Your task to perform on an android device: Find coffee shops on Maps Image 0: 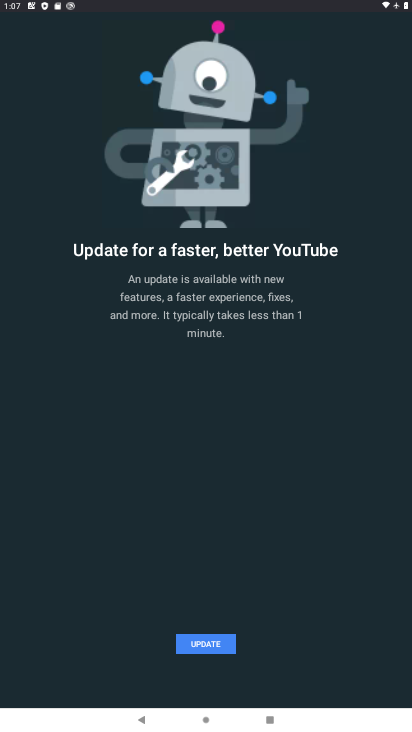
Step 0: press home button
Your task to perform on an android device: Find coffee shops on Maps Image 1: 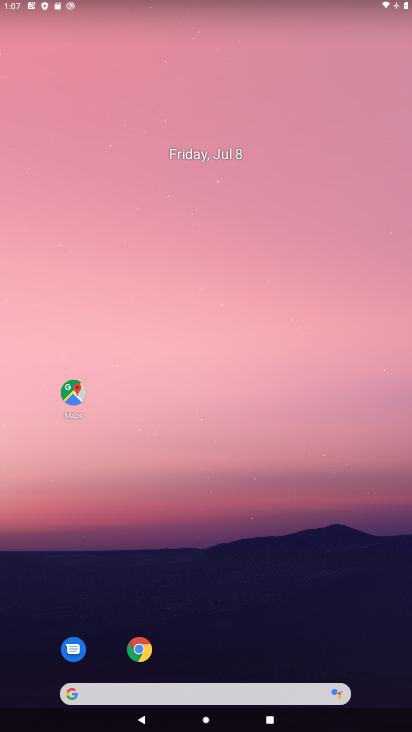
Step 1: click (76, 393)
Your task to perform on an android device: Find coffee shops on Maps Image 2: 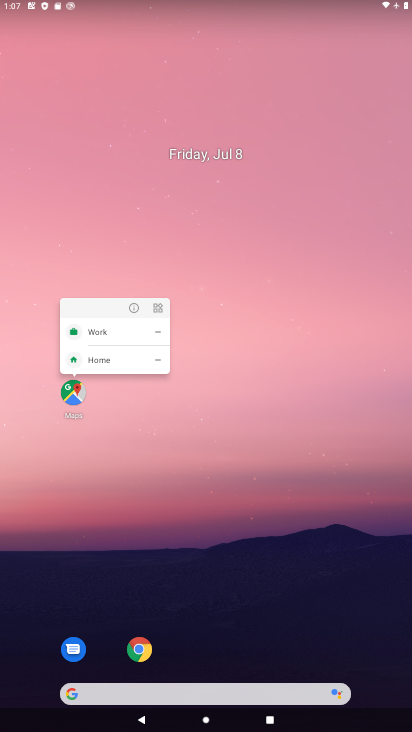
Step 2: click (74, 404)
Your task to perform on an android device: Find coffee shops on Maps Image 3: 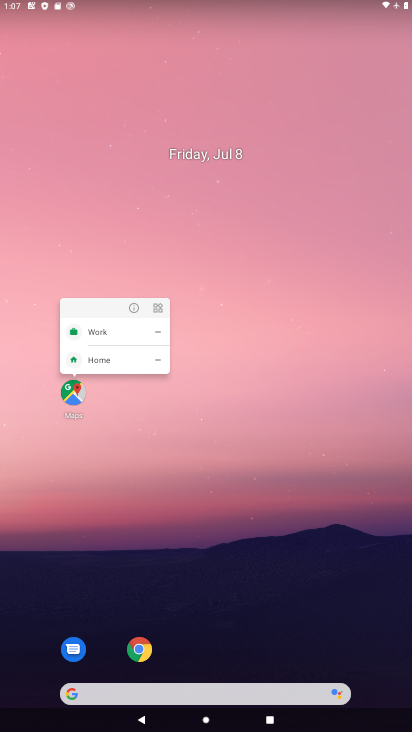
Step 3: click (75, 395)
Your task to perform on an android device: Find coffee shops on Maps Image 4: 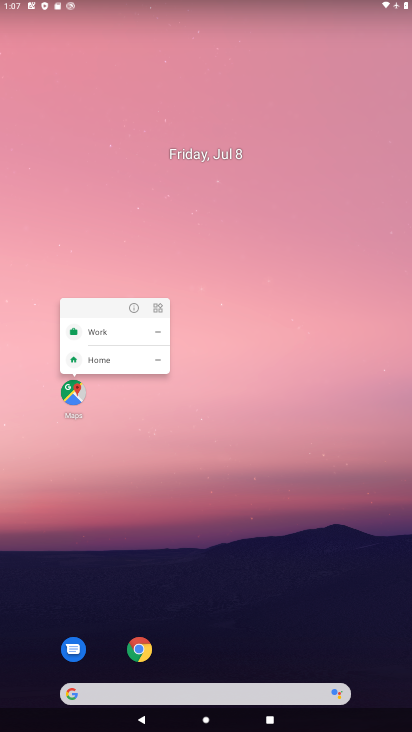
Step 4: task complete